Your task to perform on an android device: open app "LiveIn - Share Your Moment" (install if not already installed) and enter user name: "certifies@gmail.com" and password: "compartmented" Image 0: 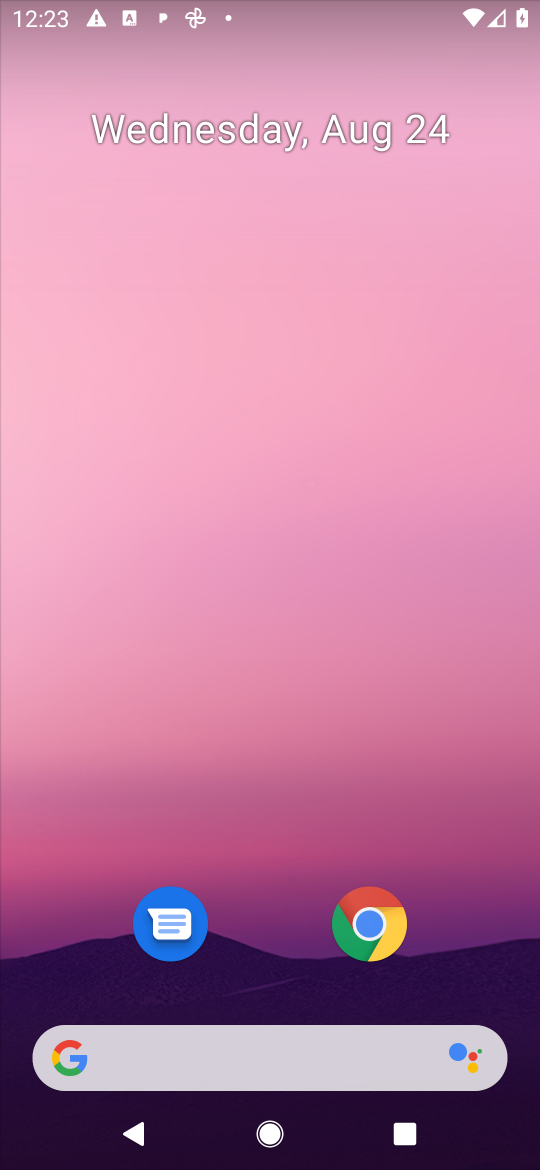
Step 0: press home button
Your task to perform on an android device: open app "LiveIn - Share Your Moment" (install if not already installed) and enter user name: "certifies@gmail.com" and password: "compartmented" Image 1: 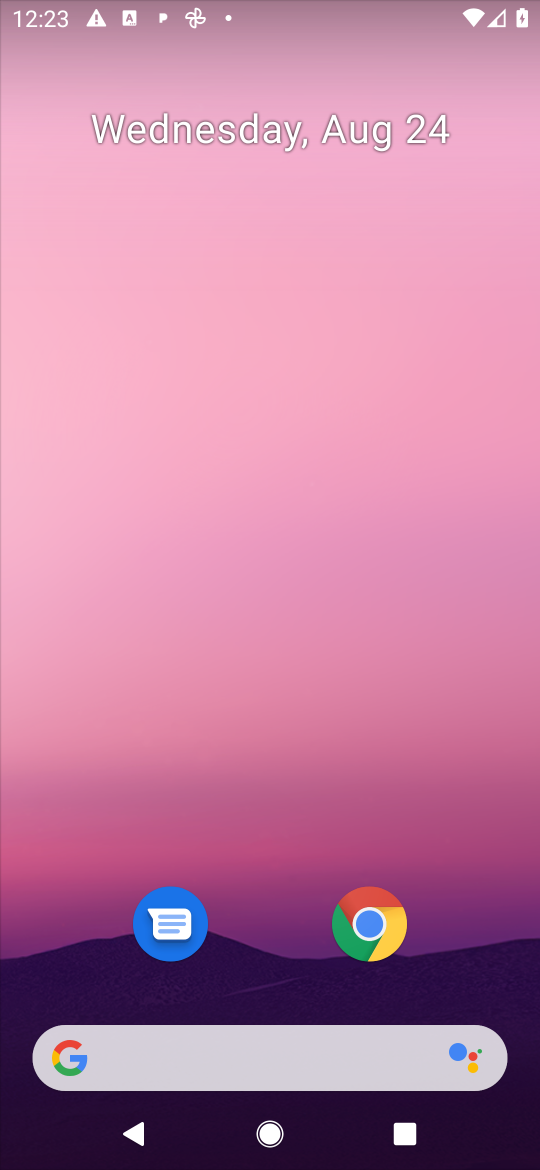
Step 1: drag from (458, 933) to (489, 88)
Your task to perform on an android device: open app "LiveIn - Share Your Moment" (install if not already installed) and enter user name: "certifies@gmail.com" and password: "compartmented" Image 2: 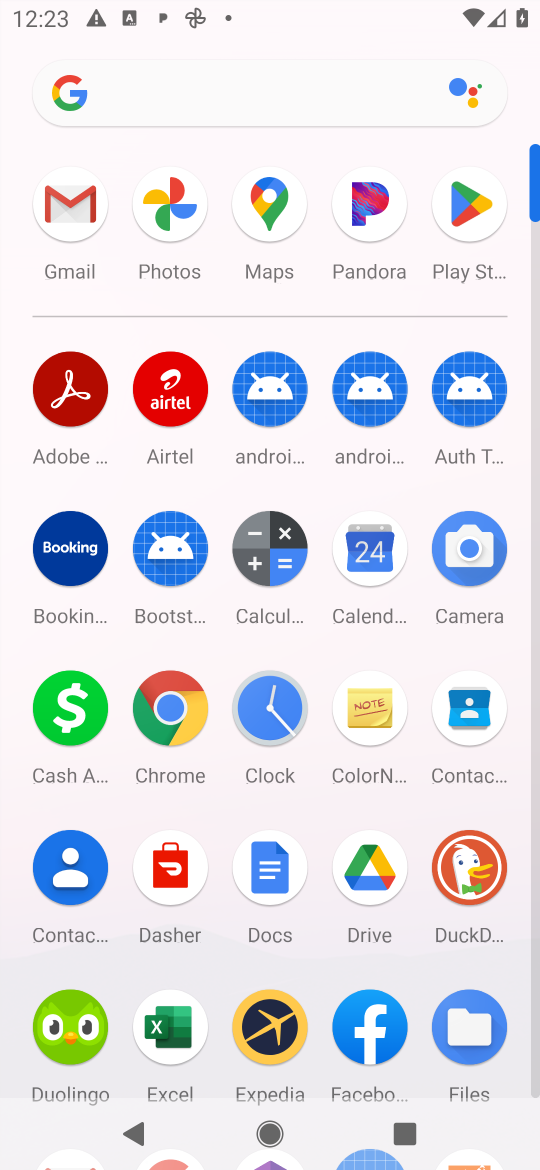
Step 2: click (454, 219)
Your task to perform on an android device: open app "LiveIn - Share Your Moment" (install if not already installed) and enter user name: "certifies@gmail.com" and password: "compartmented" Image 3: 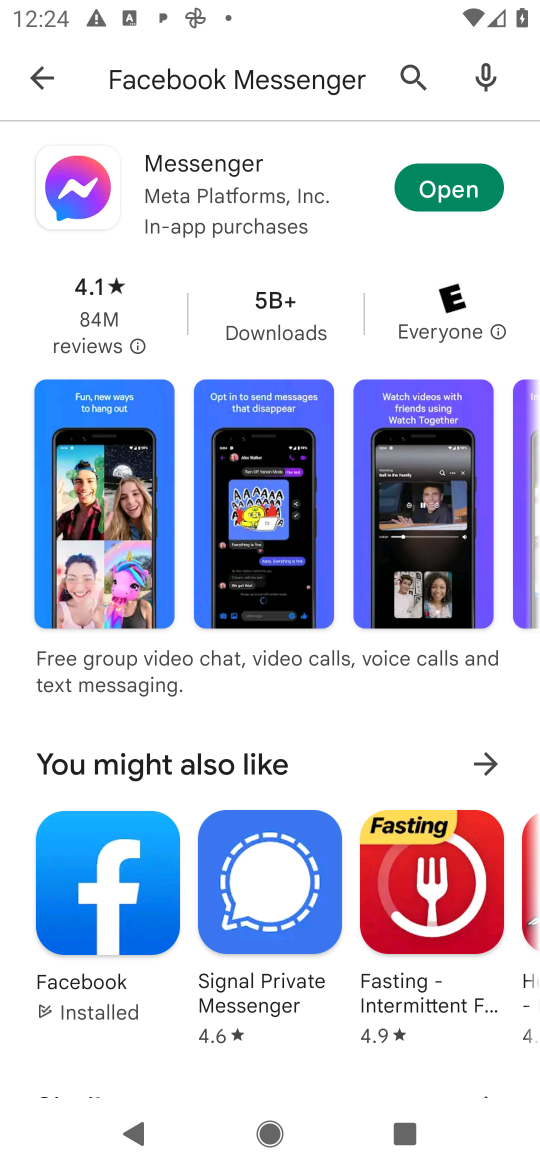
Step 3: press back button
Your task to perform on an android device: open app "LiveIn - Share Your Moment" (install if not already installed) and enter user name: "certifies@gmail.com" and password: "compartmented" Image 4: 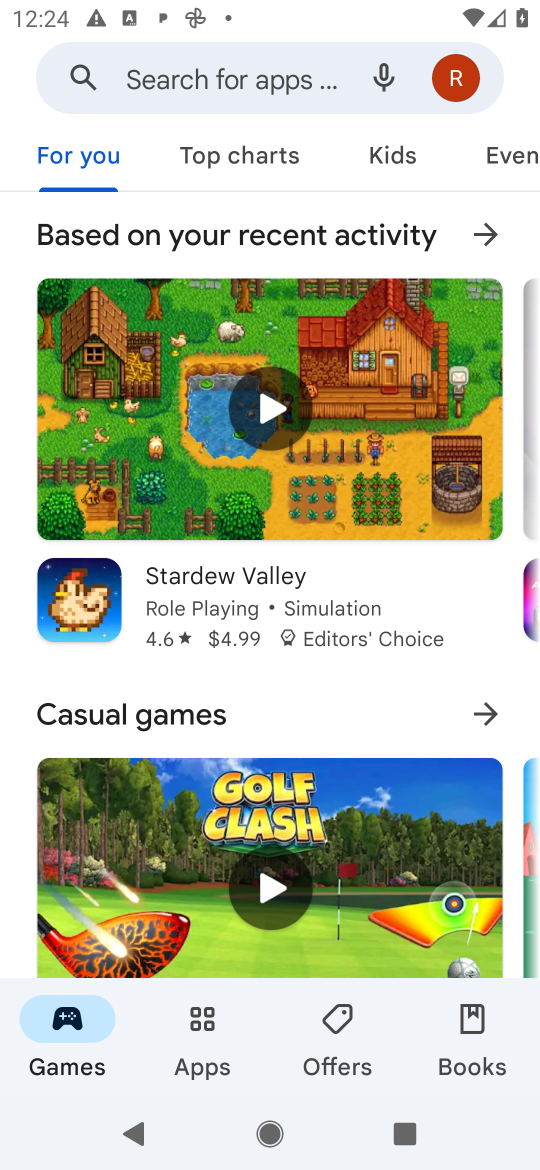
Step 4: click (283, 71)
Your task to perform on an android device: open app "LiveIn - Share Your Moment" (install if not already installed) and enter user name: "certifies@gmail.com" and password: "compartmented" Image 5: 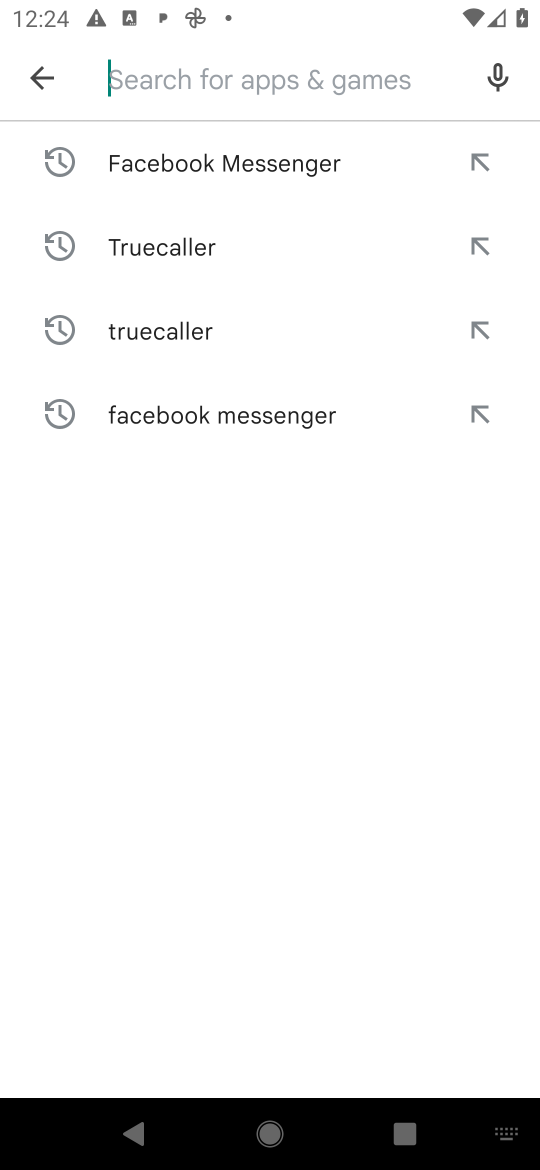
Step 5: press enter
Your task to perform on an android device: open app "LiveIn - Share Your Moment" (install if not already installed) and enter user name: "certifies@gmail.com" and password: "compartmented" Image 6: 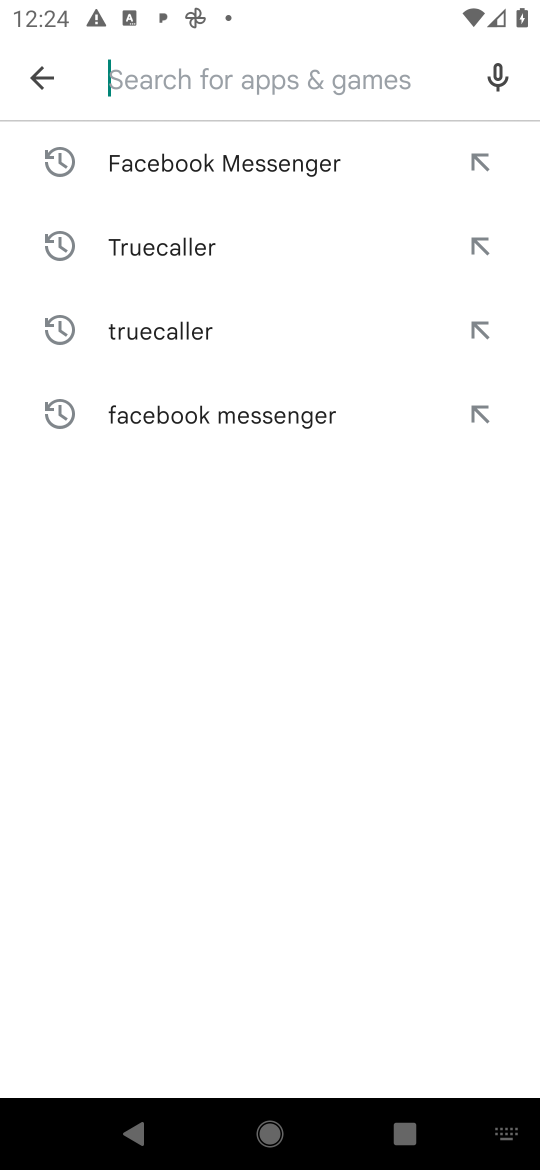
Step 6: type "LiveIn - Share Your Moment"
Your task to perform on an android device: open app "LiveIn - Share Your Moment" (install if not already installed) and enter user name: "certifies@gmail.com" and password: "compartmented" Image 7: 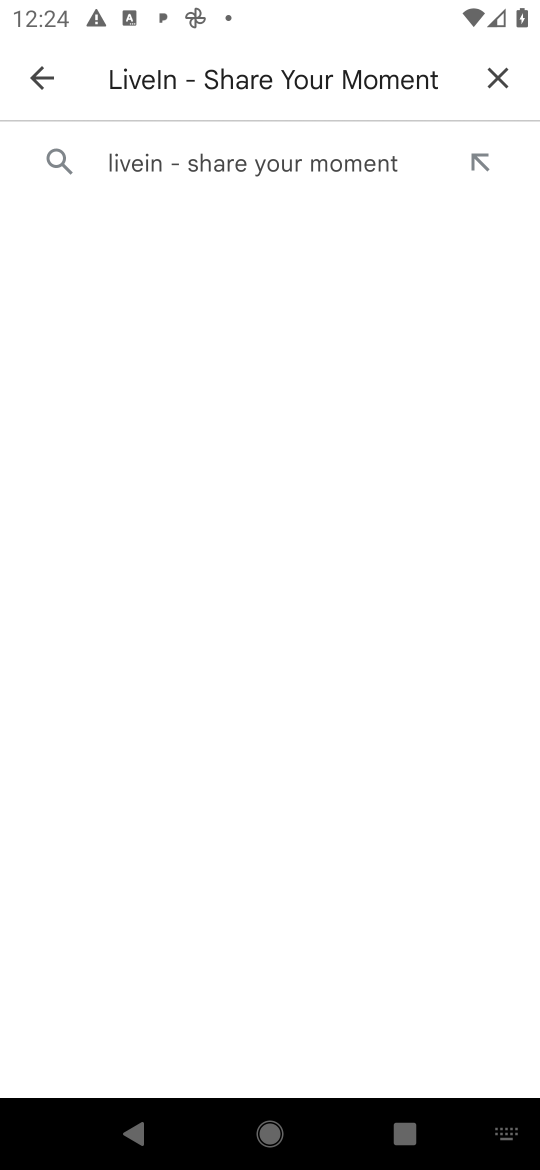
Step 7: click (271, 158)
Your task to perform on an android device: open app "LiveIn - Share Your Moment" (install if not already installed) and enter user name: "certifies@gmail.com" and password: "compartmented" Image 8: 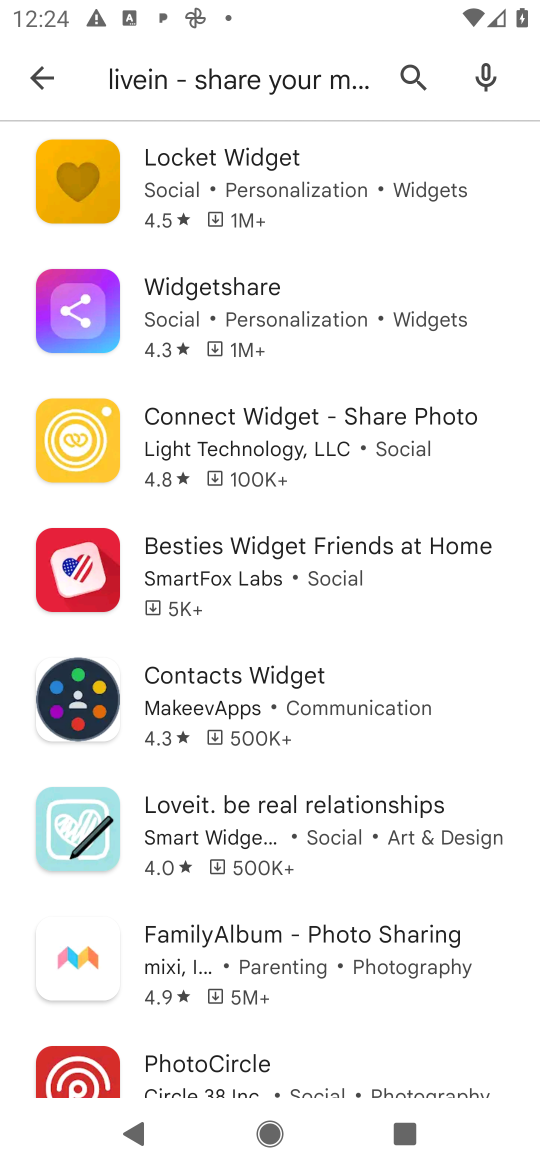
Step 8: task complete